Your task to perform on an android device: Go to battery settings Image 0: 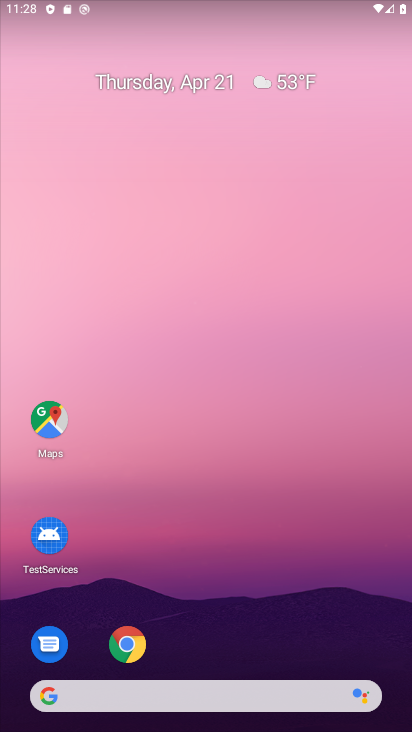
Step 0: drag from (368, 408) to (360, 111)
Your task to perform on an android device: Go to battery settings Image 1: 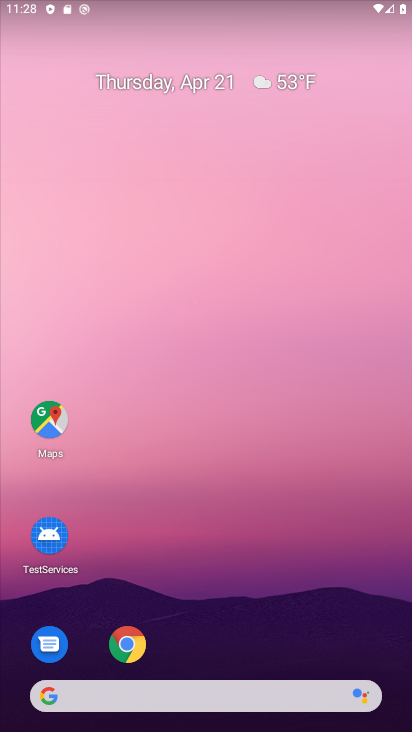
Step 1: drag from (205, 521) to (205, 97)
Your task to perform on an android device: Go to battery settings Image 2: 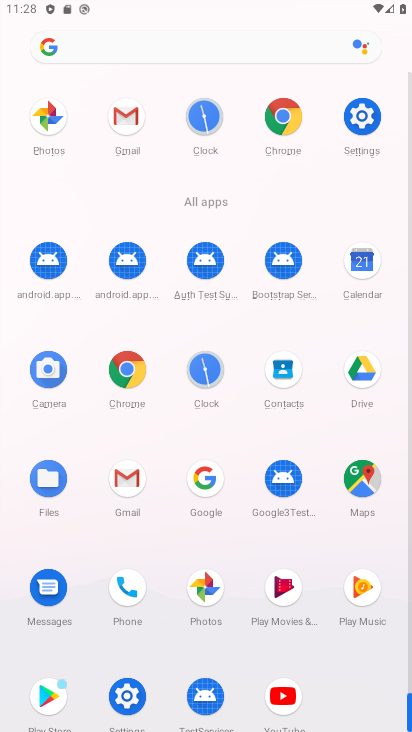
Step 2: click (358, 127)
Your task to perform on an android device: Go to battery settings Image 3: 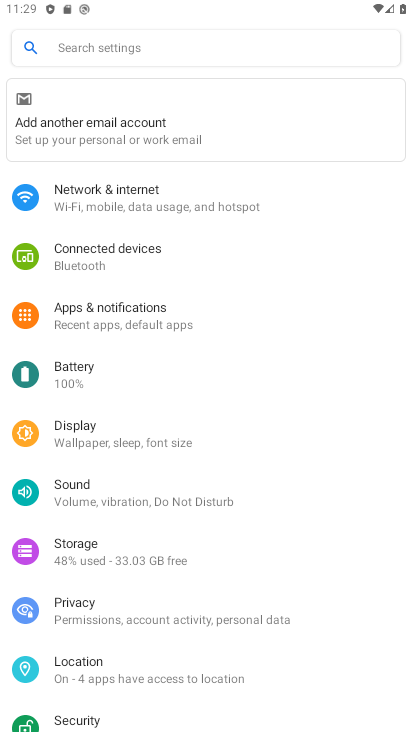
Step 3: drag from (187, 622) to (195, 167)
Your task to perform on an android device: Go to battery settings Image 4: 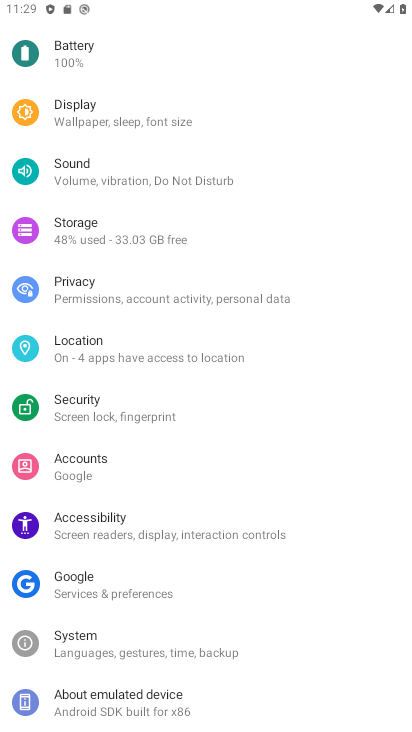
Step 4: drag from (137, 513) to (240, 189)
Your task to perform on an android device: Go to battery settings Image 5: 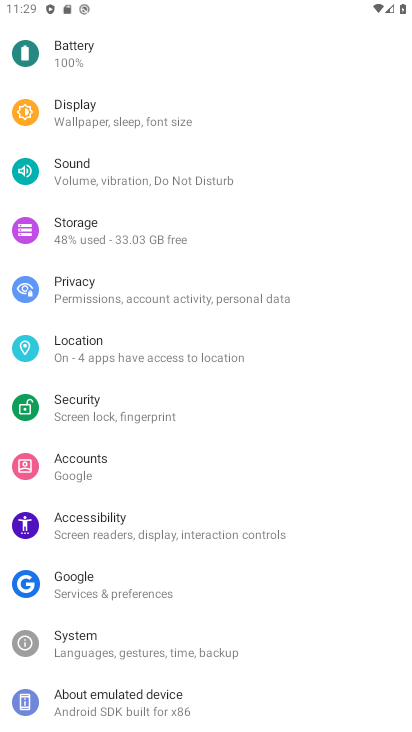
Step 5: drag from (224, 234) to (224, 591)
Your task to perform on an android device: Go to battery settings Image 6: 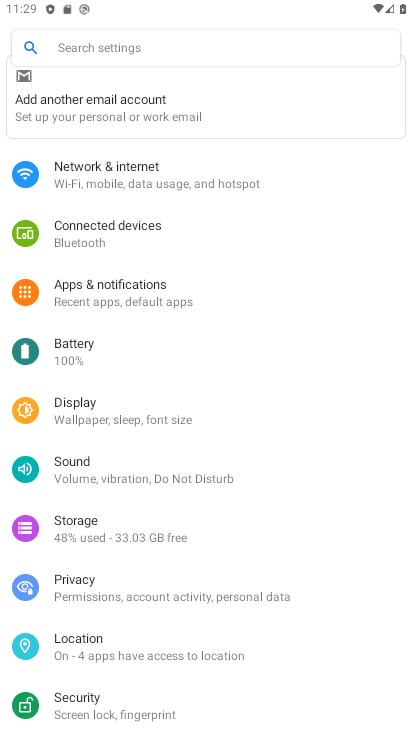
Step 6: click (107, 348)
Your task to perform on an android device: Go to battery settings Image 7: 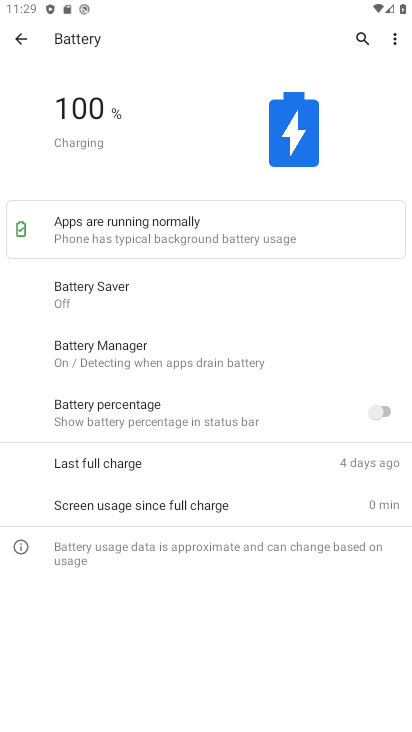
Step 7: task complete